Your task to perform on an android device: check battery use Image 0: 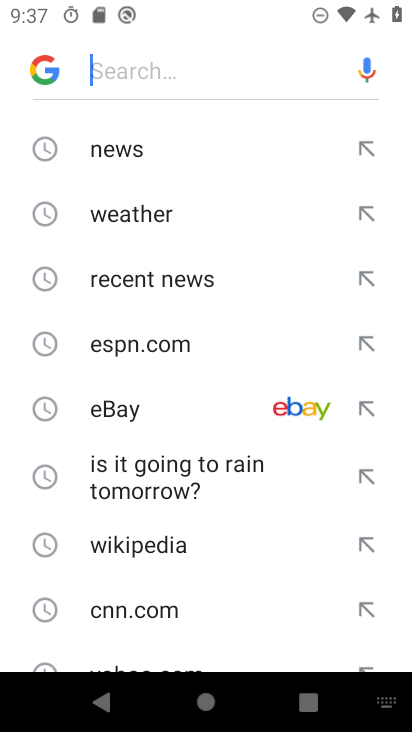
Step 0: press home button
Your task to perform on an android device: check battery use Image 1: 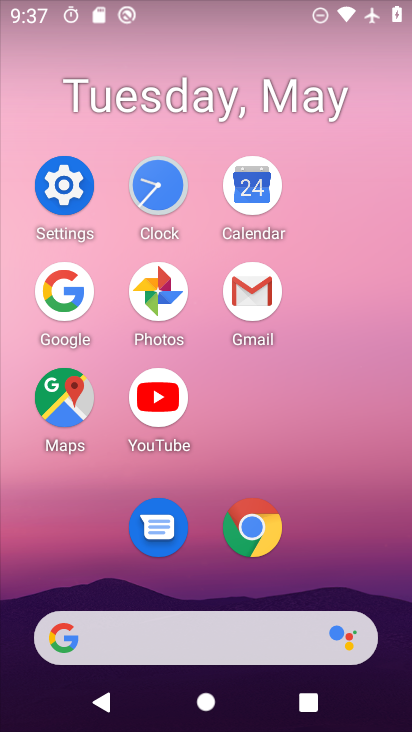
Step 1: click (74, 191)
Your task to perform on an android device: check battery use Image 2: 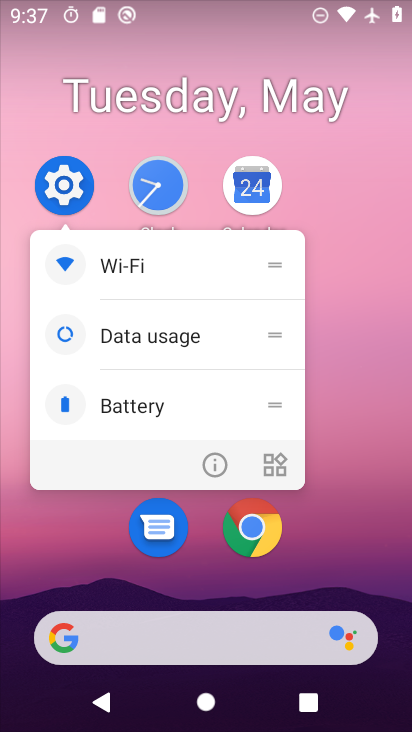
Step 2: click (74, 191)
Your task to perform on an android device: check battery use Image 3: 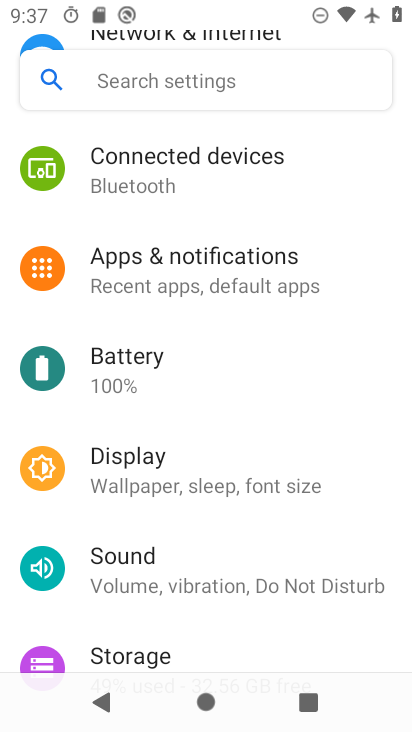
Step 3: click (112, 364)
Your task to perform on an android device: check battery use Image 4: 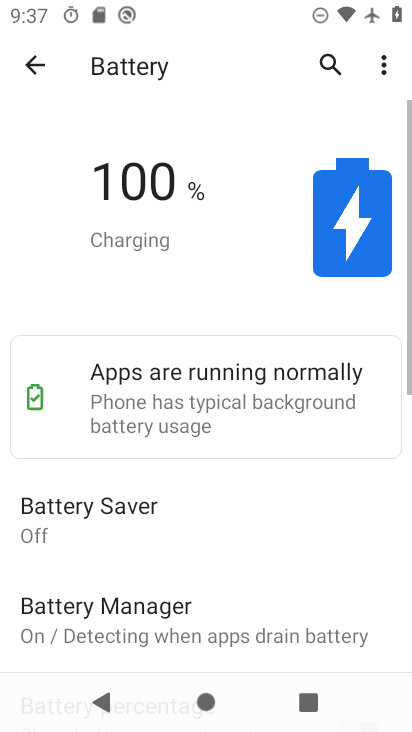
Step 4: click (388, 67)
Your task to perform on an android device: check battery use Image 5: 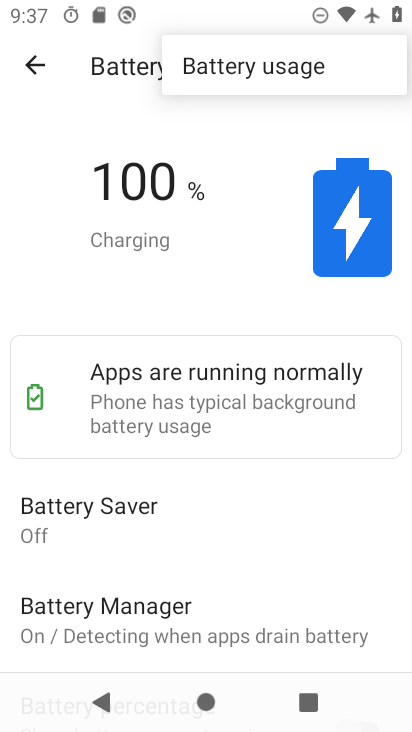
Step 5: click (352, 70)
Your task to perform on an android device: check battery use Image 6: 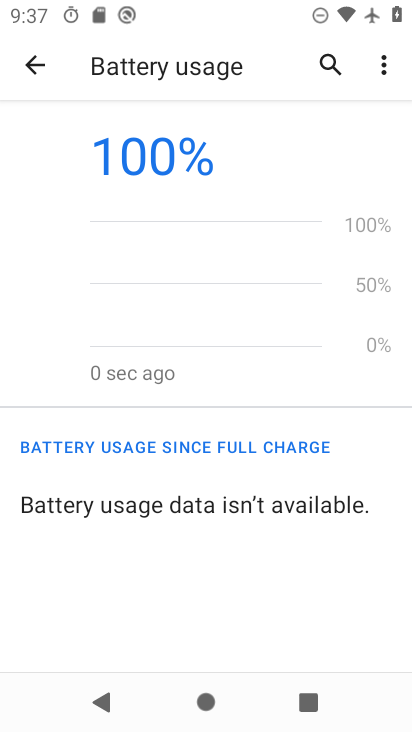
Step 6: task complete